Your task to perform on an android device: Go to wifi settings Image 0: 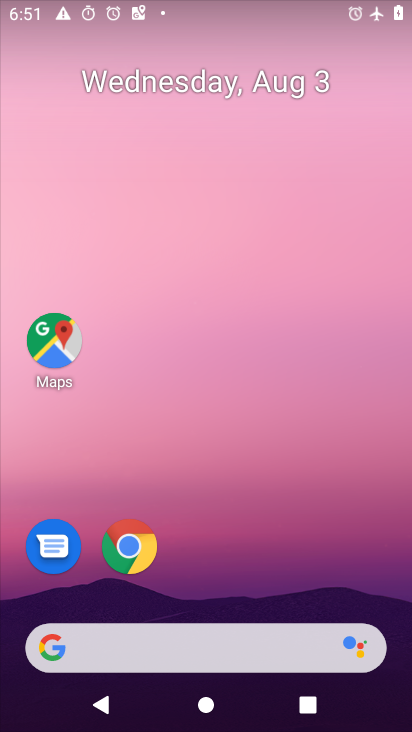
Step 0: press home button
Your task to perform on an android device: Go to wifi settings Image 1: 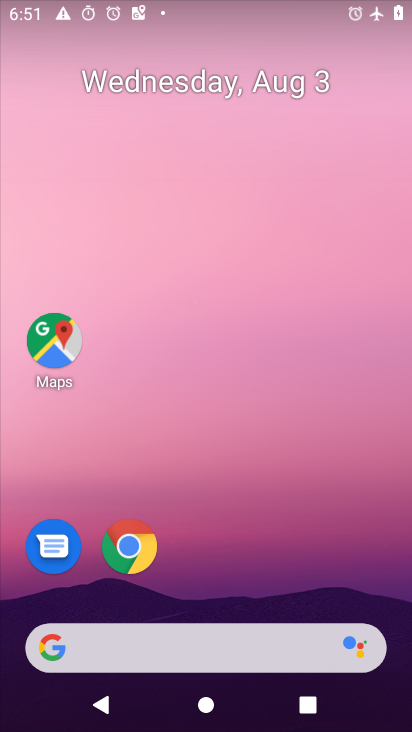
Step 1: drag from (223, 614) to (267, 0)
Your task to perform on an android device: Go to wifi settings Image 2: 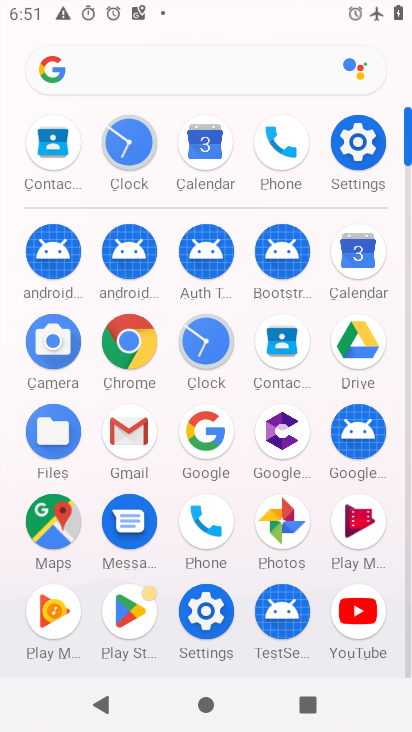
Step 2: click (356, 146)
Your task to perform on an android device: Go to wifi settings Image 3: 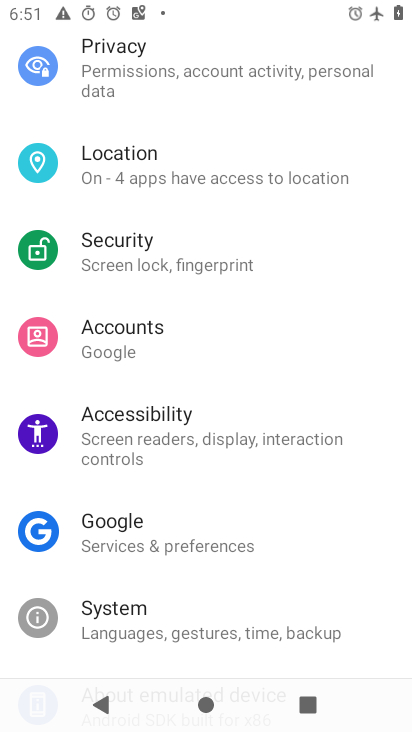
Step 3: drag from (234, 125) to (203, 599)
Your task to perform on an android device: Go to wifi settings Image 4: 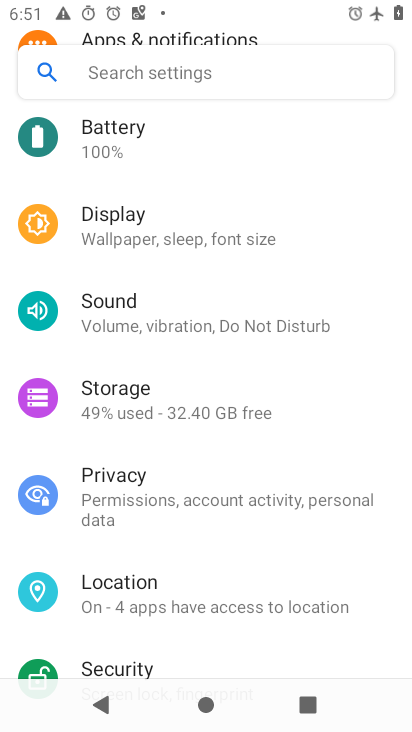
Step 4: drag from (284, 153) to (276, 667)
Your task to perform on an android device: Go to wifi settings Image 5: 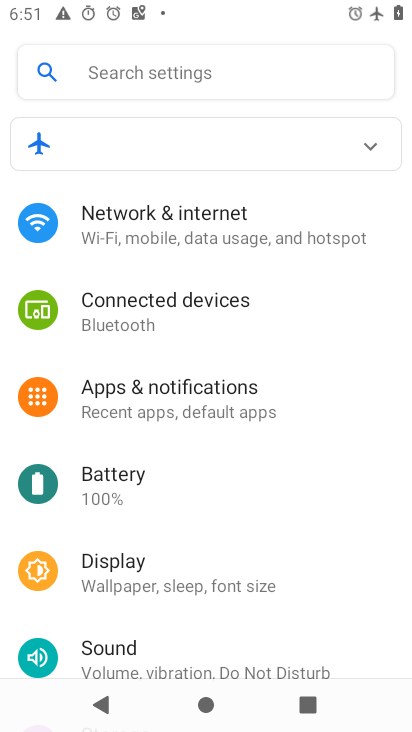
Step 5: click (153, 235)
Your task to perform on an android device: Go to wifi settings Image 6: 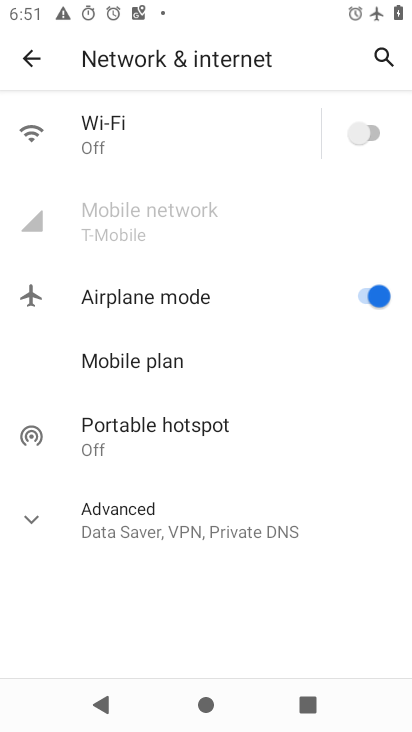
Step 6: click (118, 115)
Your task to perform on an android device: Go to wifi settings Image 7: 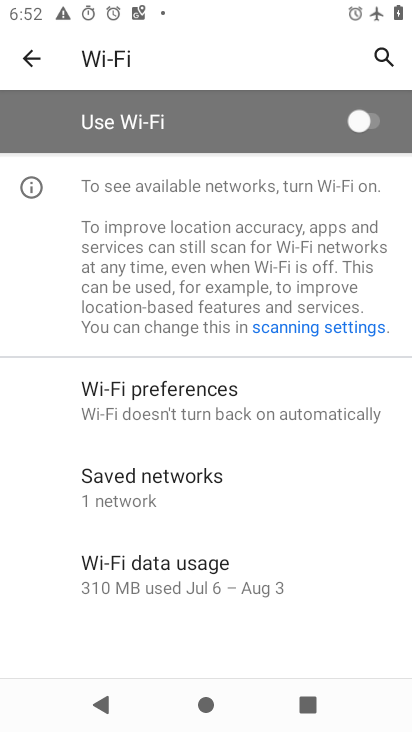
Step 7: click (354, 122)
Your task to perform on an android device: Go to wifi settings Image 8: 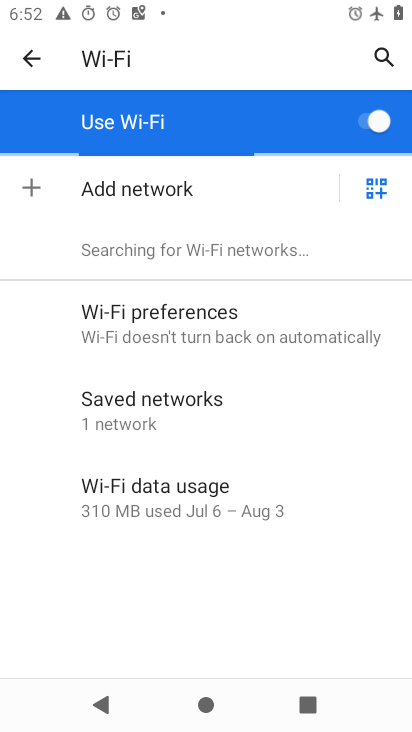
Step 8: task complete